Your task to perform on an android device: turn off wifi Image 0: 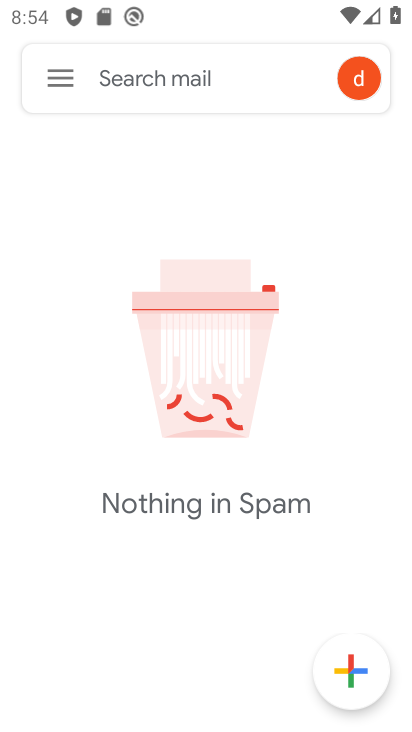
Step 0: press home button
Your task to perform on an android device: turn off wifi Image 1: 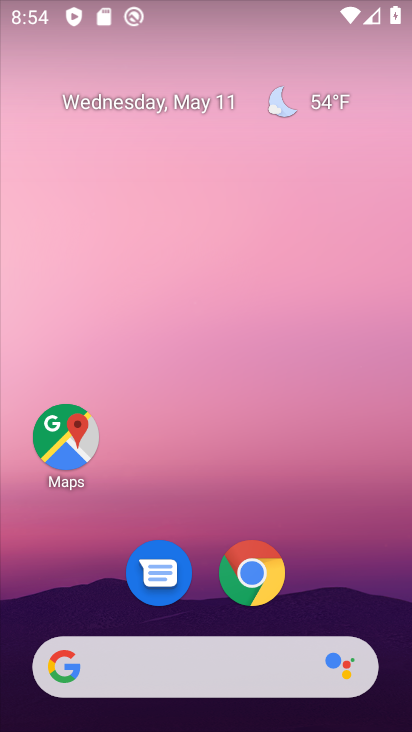
Step 1: drag from (284, 647) to (332, 82)
Your task to perform on an android device: turn off wifi Image 2: 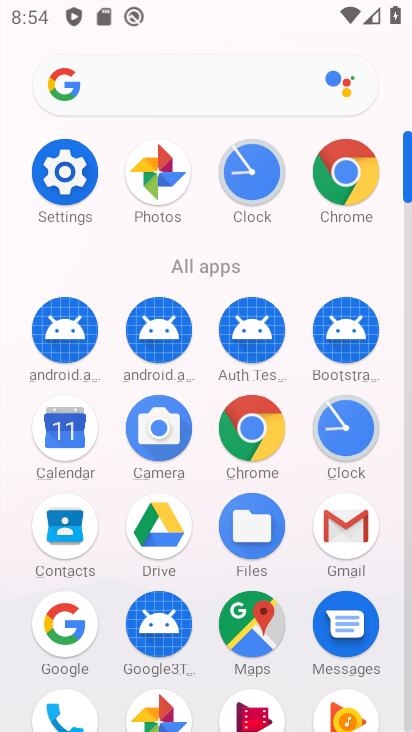
Step 2: click (73, 165)
Your task to perform on an android device: turn off wifi Image 3: 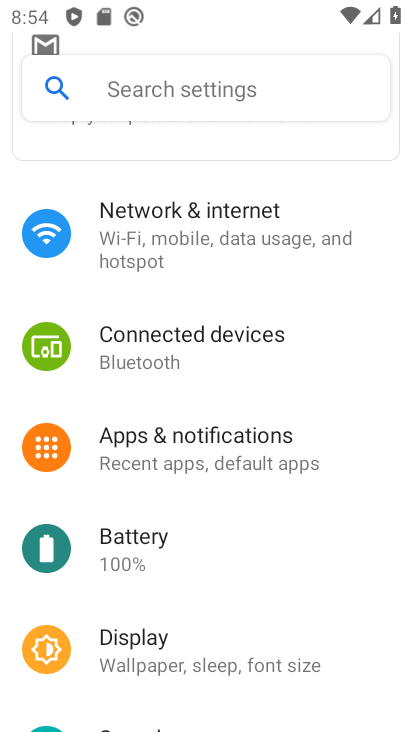
Step 3: click (215, 228)
Your task to perform on an android device: turn off wifi Image 4: 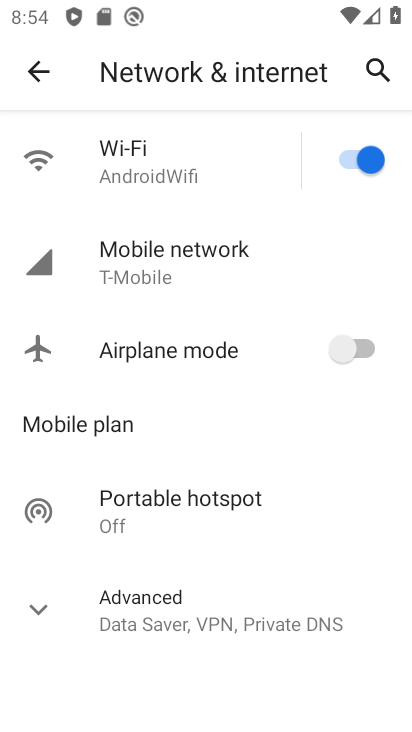
Step 4: click (341, 161)
Your task to perform on an android device: turn off wifi Image 5: 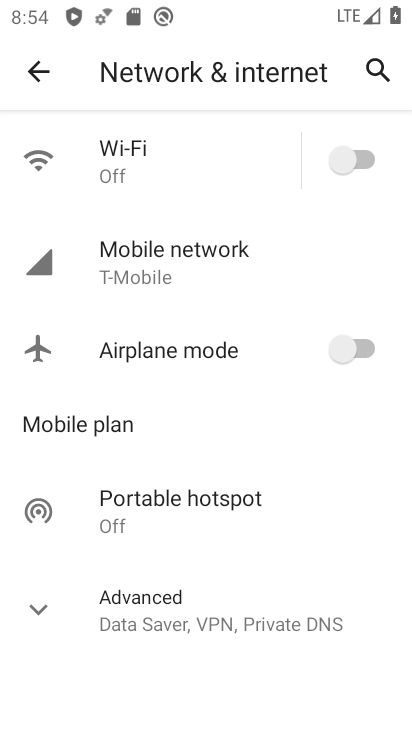
Step 5: task complete